Your task to perform on an android device: turn on bluetooth scan Image 0: 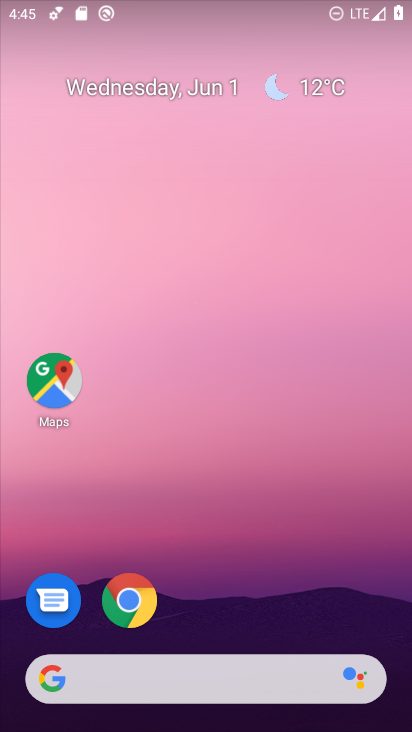
Step 0: drag from (395, 628) to (327, 101)
Your task to perform on an android device: turn on bluetooth scan Image 1: 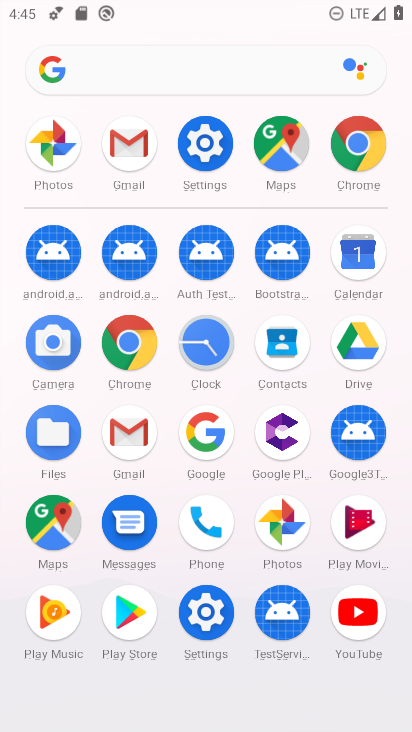
Step 1: click (206, 613)
Your task to perform on an android device: turn on bluetooth scan Image 2: 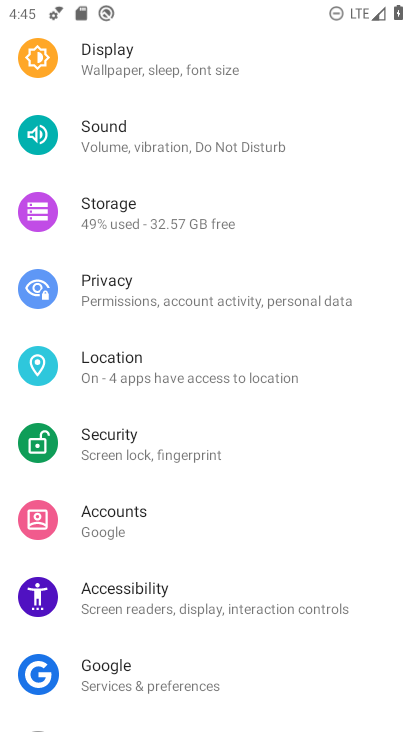
Step 2: click (111, 372)
Your task to perform on an android device: turn on bluetooth scan Image 3: 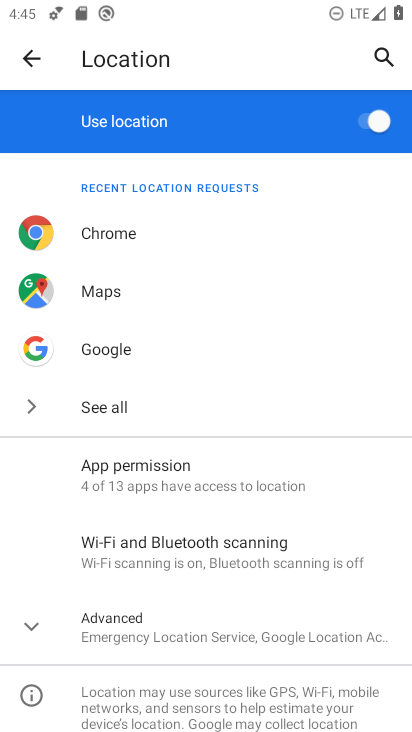
Step 3: click (155, 541)
Your task to perform on an android device: turn on bluetooth scan Image 4: 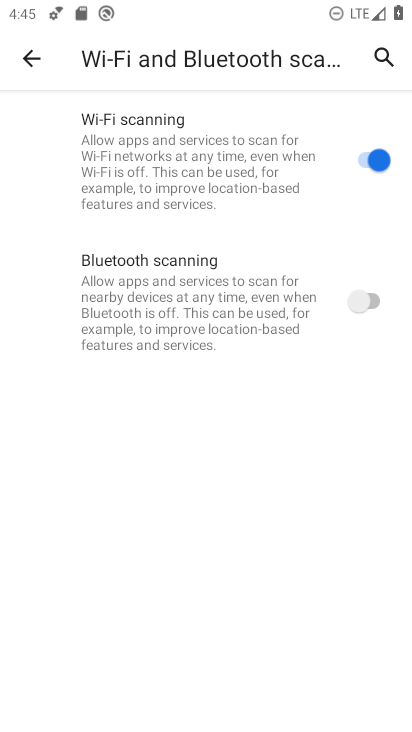
Step 4: click (372, 303)
Your task to perform on an android device: turn on bluetooth scan Image 5: 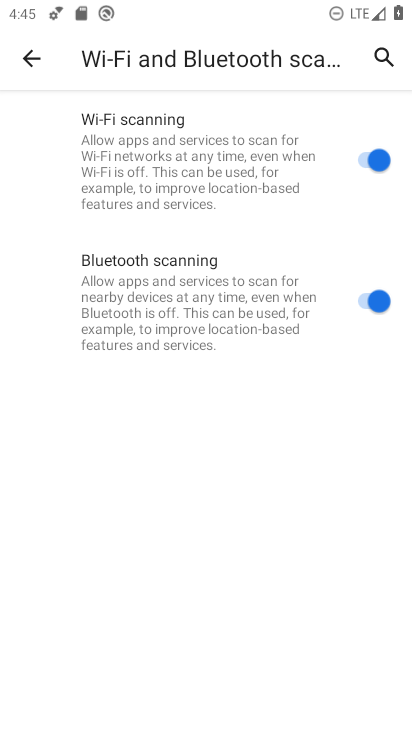
Step 5: task complete